Your task to perform on an android device: open app "McDonald's" (install if not already installed) Image 0: 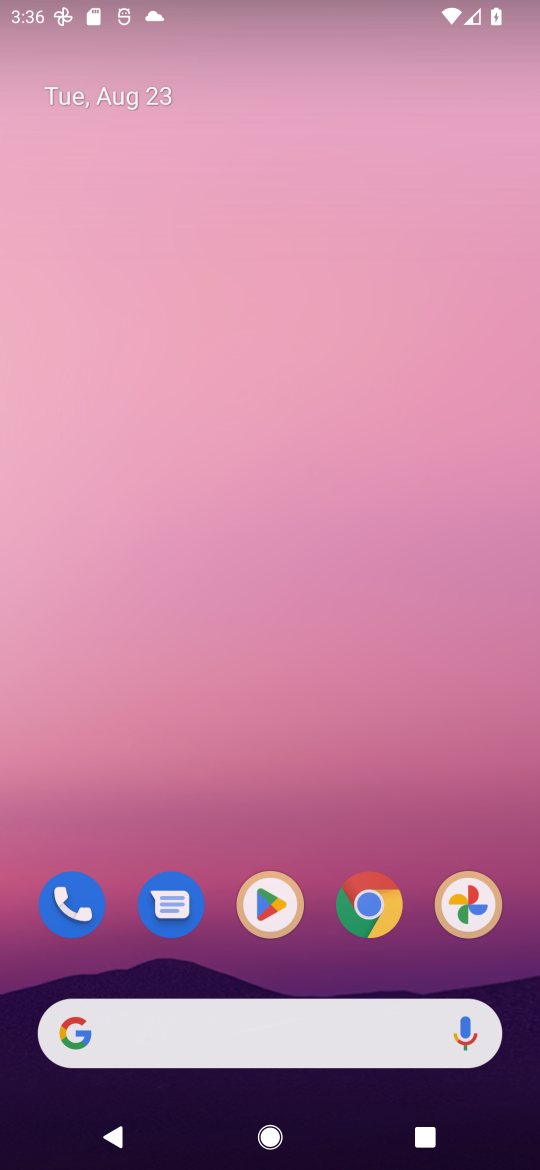
Step 0: press home button
Your task to perform on an android device: open app "McDonald's" (install if not already installed) Image 1: 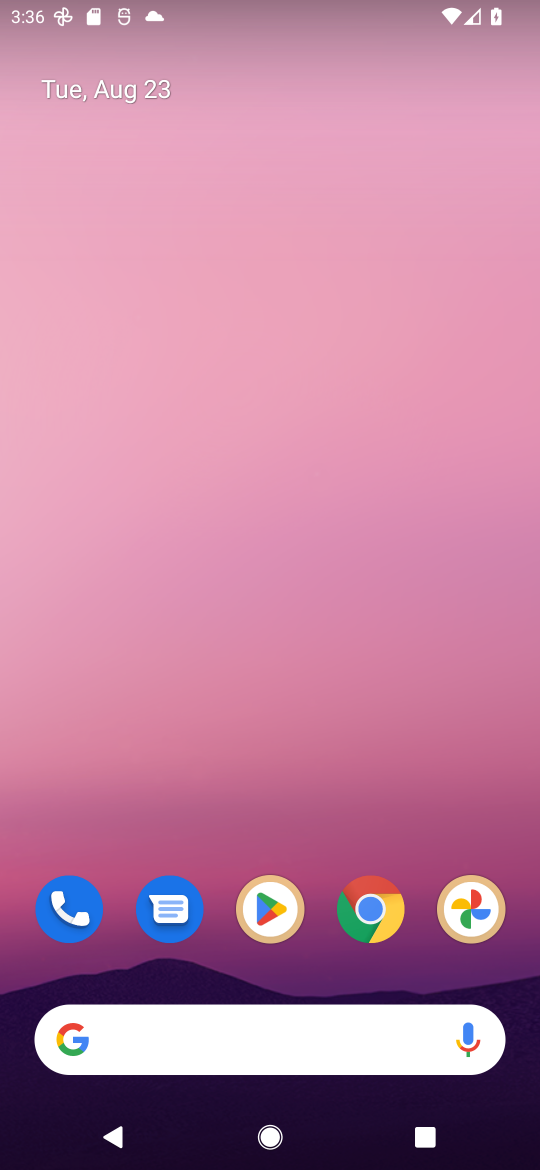
Step 1: click (262, 901)
Your task to perform on an android device: open app "McDonald's" (install if not already installed) Image 2: 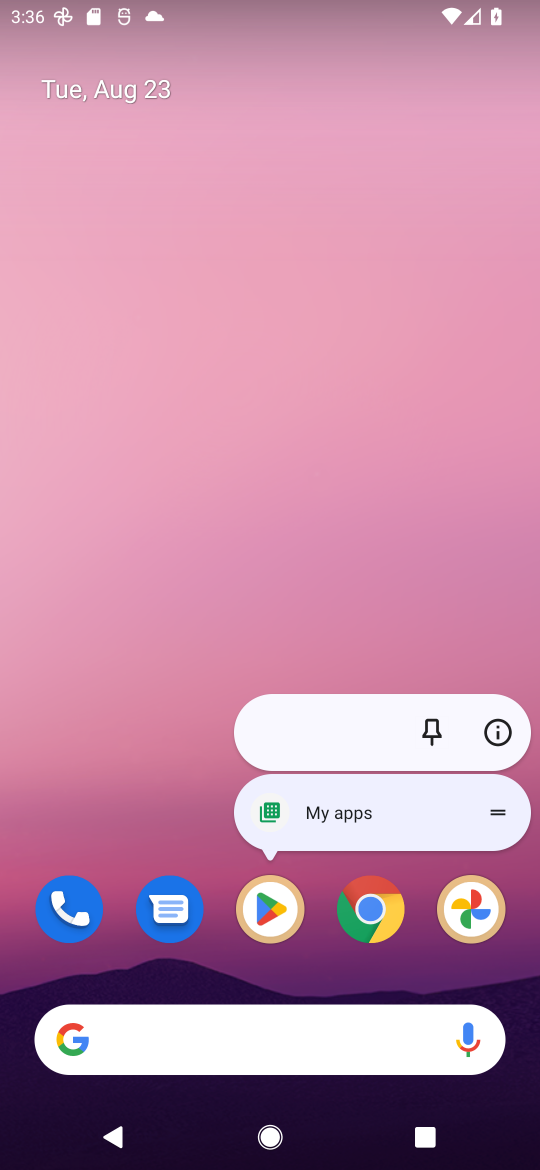
Step 2: click (265, 901)
Your task to perform on an android device: open app "McDonald's" (install if not already installed) Image 3: 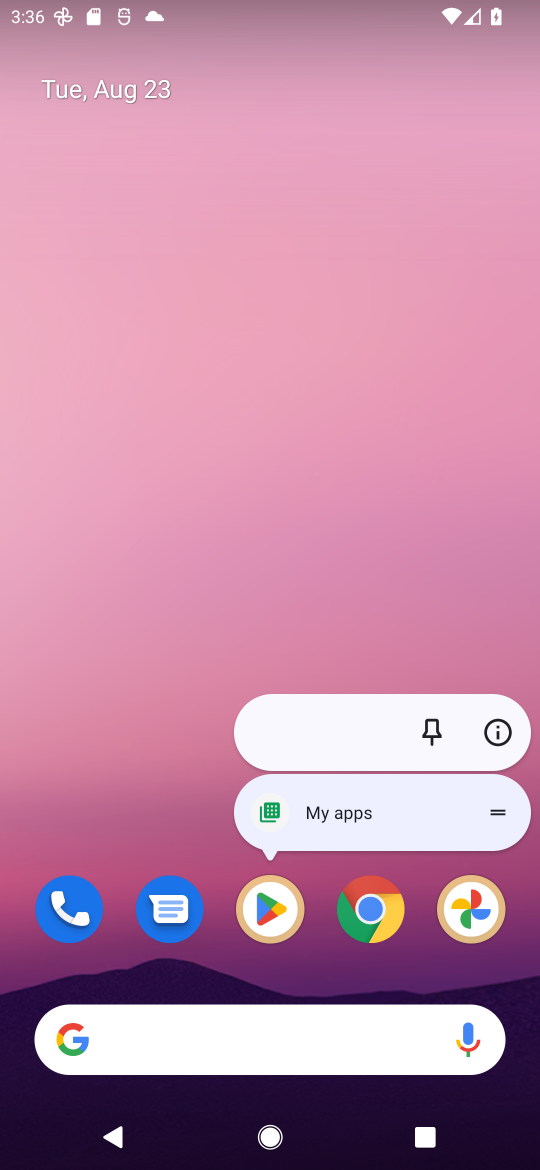
Step 3: click (55, 728)
Your task to perform on an android device: open app "McDonald's" (install if not already installed) Image 4: 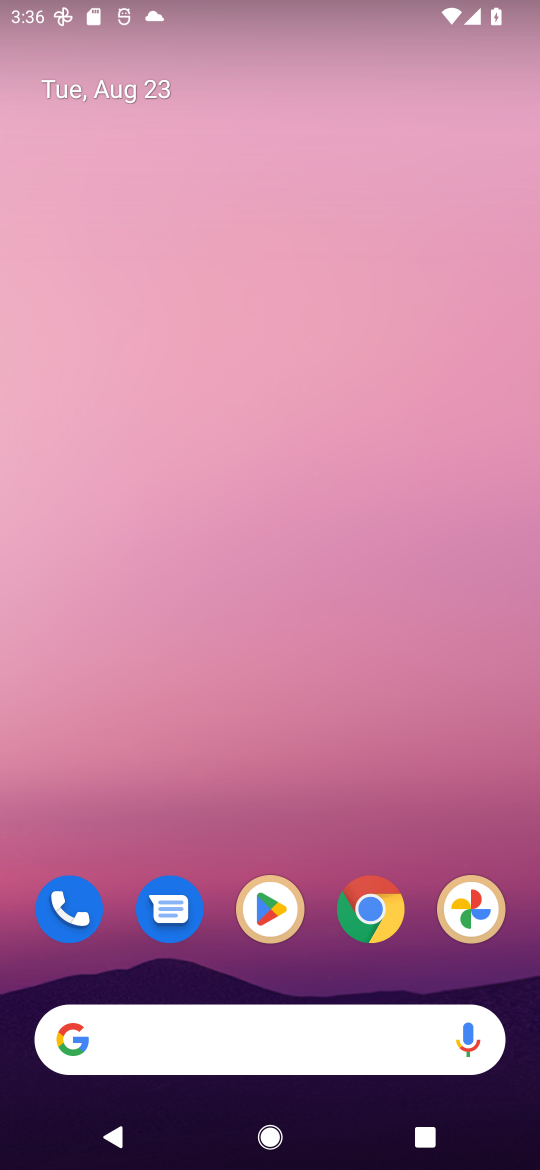
Step 4: click (265, 906)
Your task to perform on an android device: open app "McDonald's" (install if not already installed) Image 5: 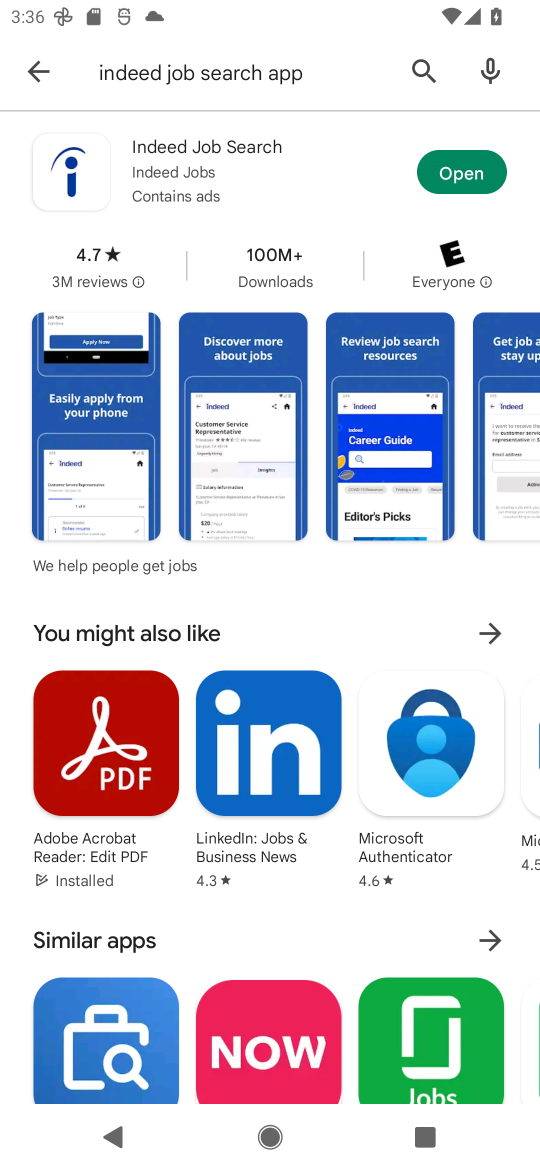
Step 5: click (422, 63)
Your task to perform on an android device: open app "McDonald's" (install if not already installed) Image 6: 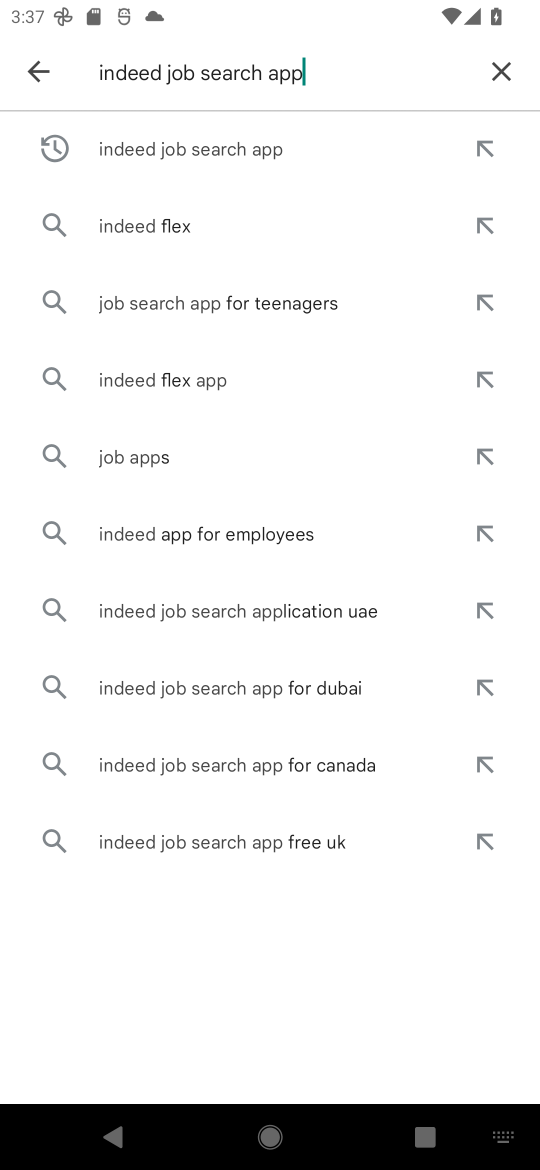
Step 6: click (494, 72)
Your task to perform on an android device: open app "McDonald's" (install if not already installed) Image 7: 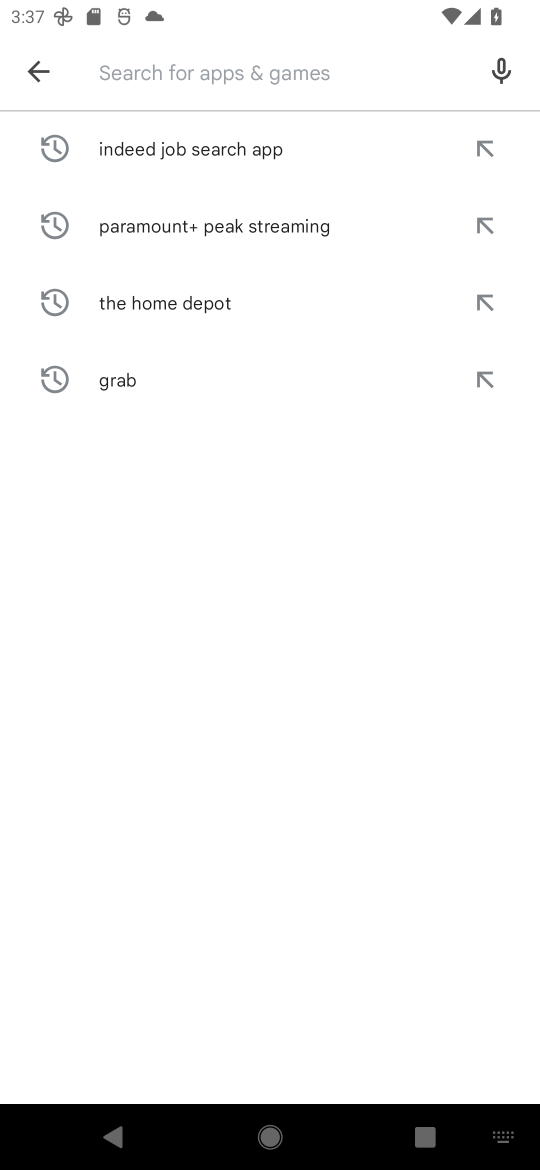
Step 7: type "McDonald's"
Your task to perform on an android device: open app "McDonald's" (install if not already installed) Image 8: 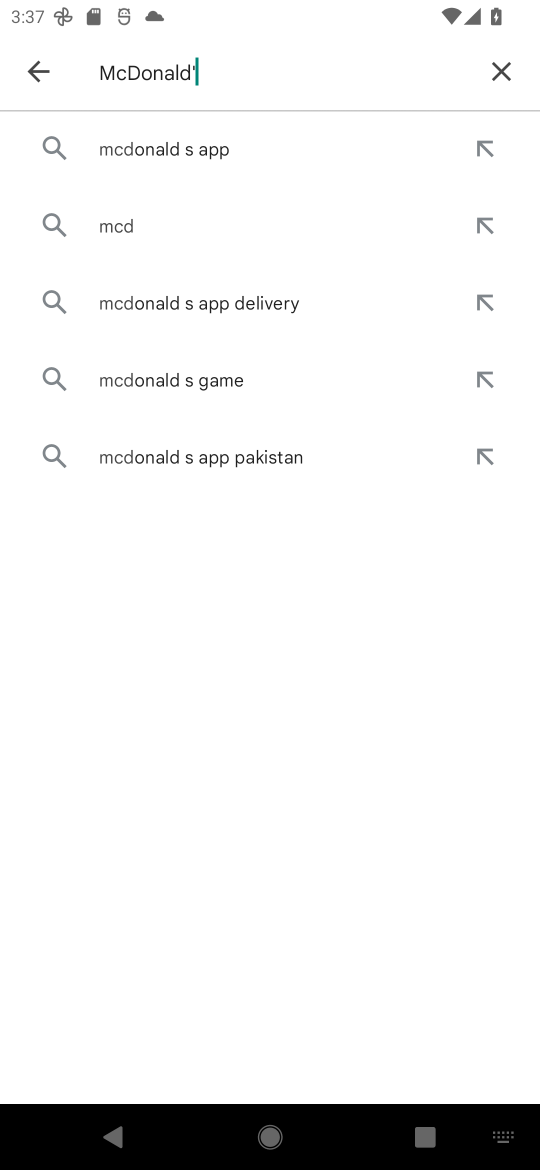
Step 8: type ""
Your task to perform on an android device: open app "McDonald's" (install if not already installed) Image 9: 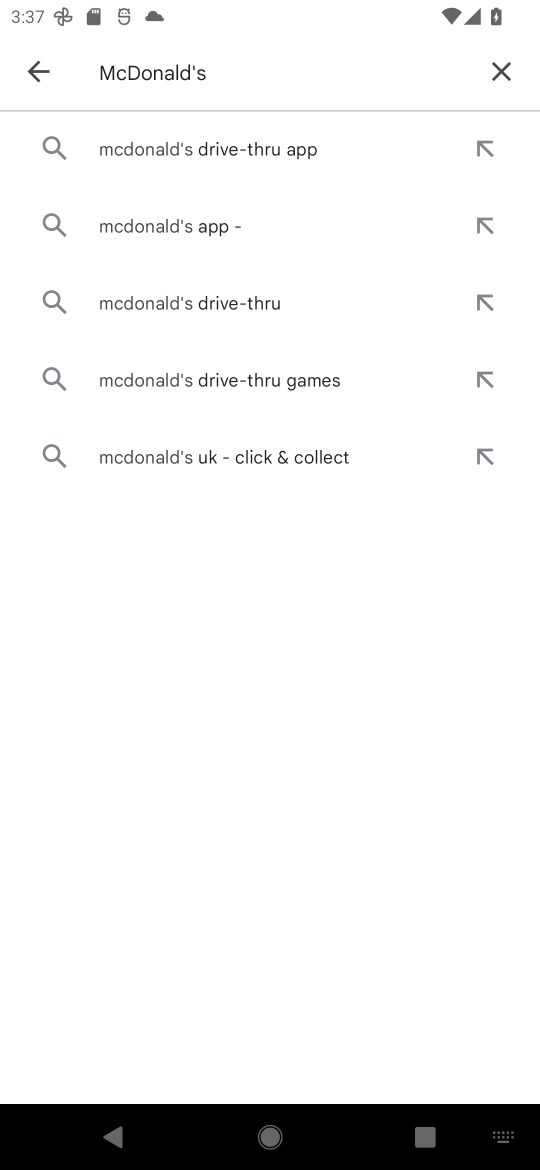
Step 9: click (244, 224)
Your task to perform on an android device: open app "McDonald's" (install if not already installed) Image 10: 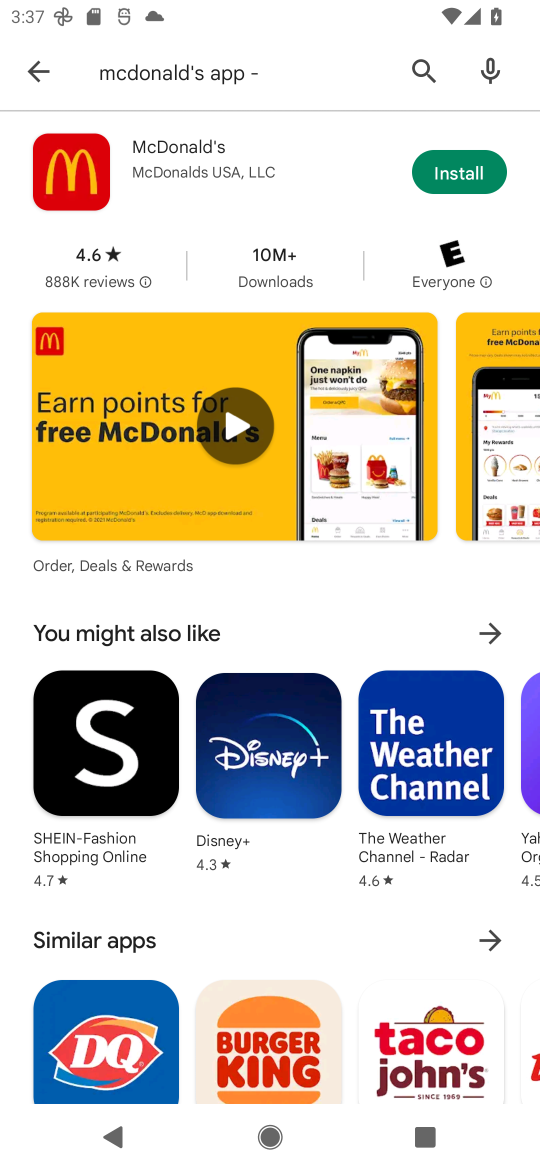
Step 10: click (468, 172)
Your task to perform on an android device: open app "McDonald's" (install if not already installed) Image 11: 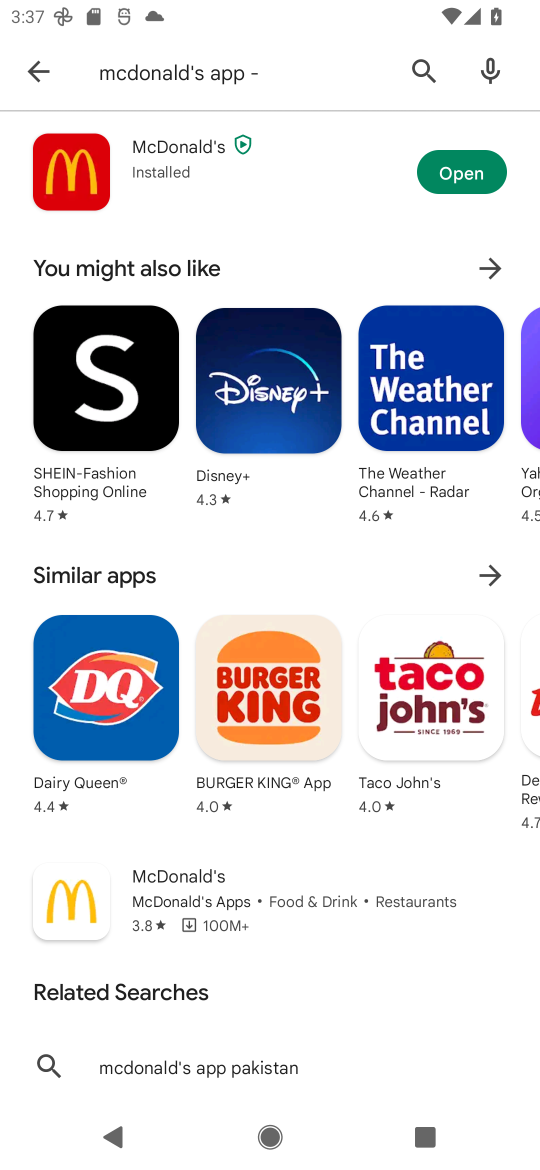
Step 11: click (461, 172)
Your task to perform on an android device: open app "McDonald's" (install if not already installed) Image 12: 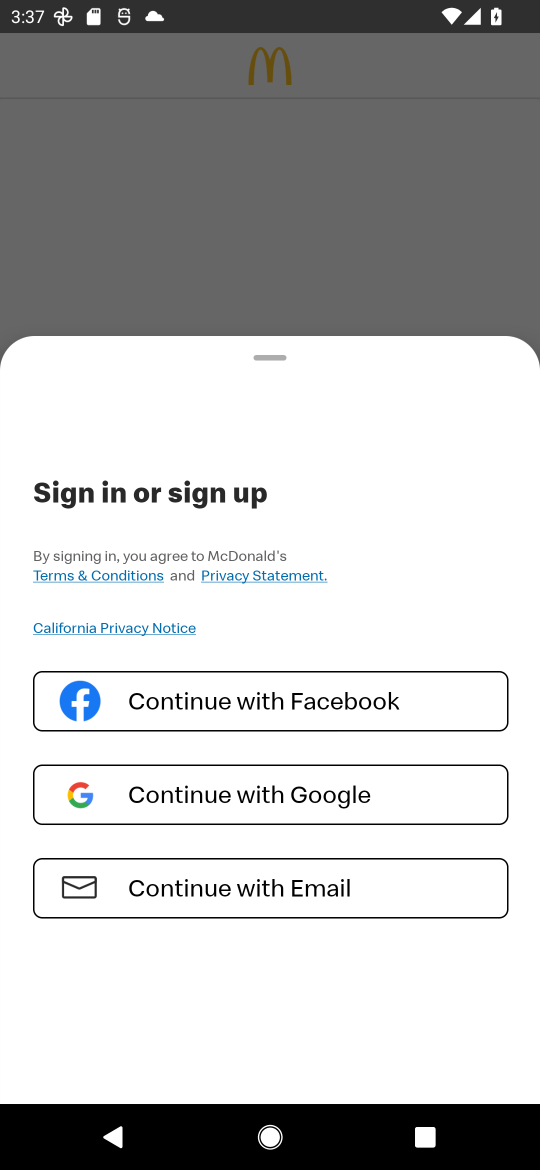
Step 12: click (280, 784)
Your task to perform on an android device: open app "McDonald's" (install if not already installed) Image 13: 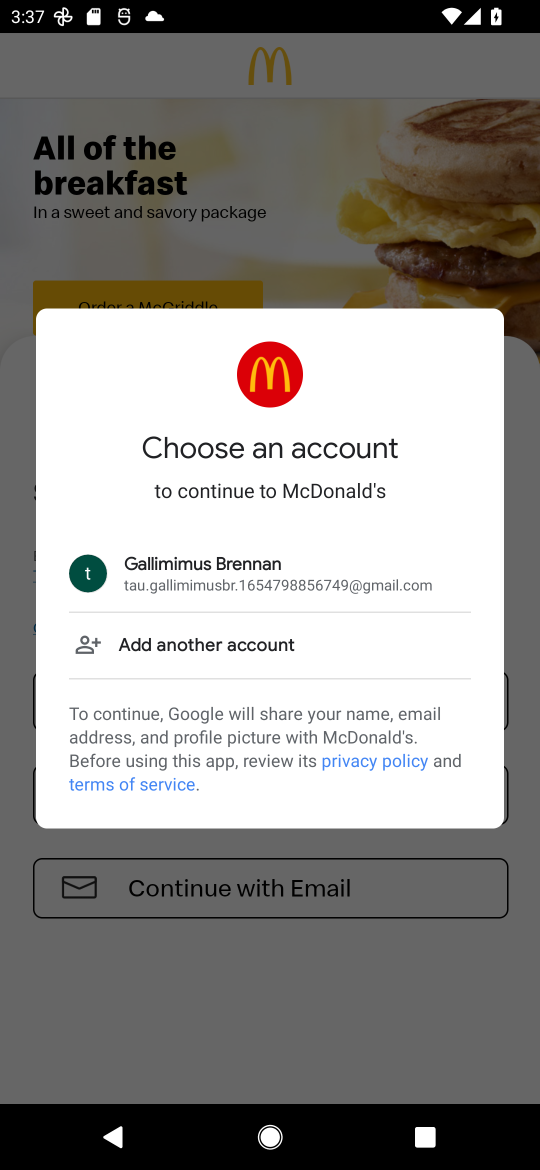
Step 13: click (214, 568)
Your task to perform on an android device: open app "McDonald's" (install if not already installed) Image 14: 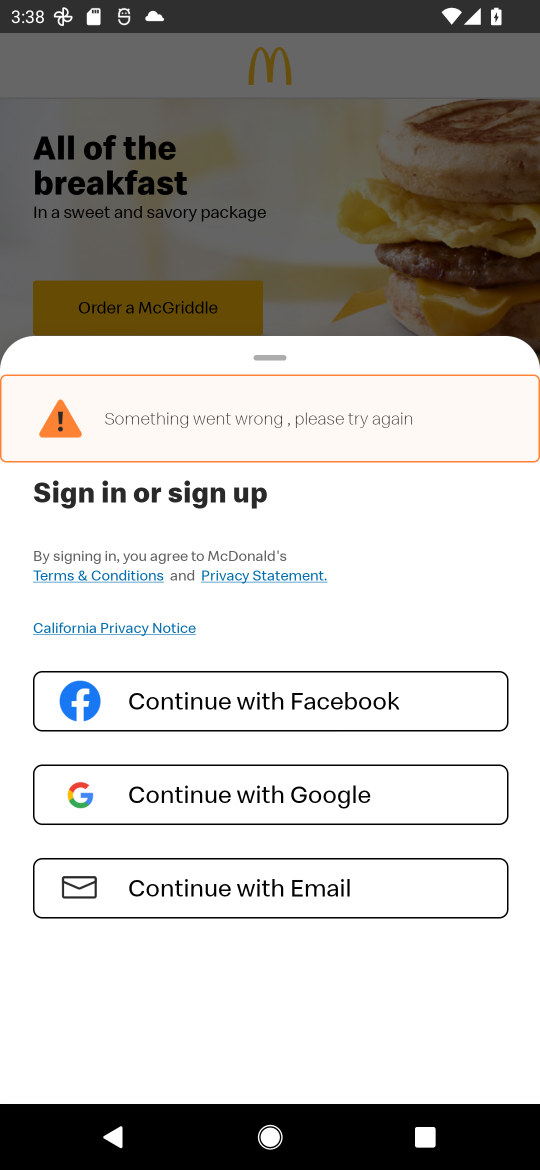
Step 14: task complete